Your task to perform on an android device: Open Google Chrome and click the shortcut for Amazon.com Image 0: 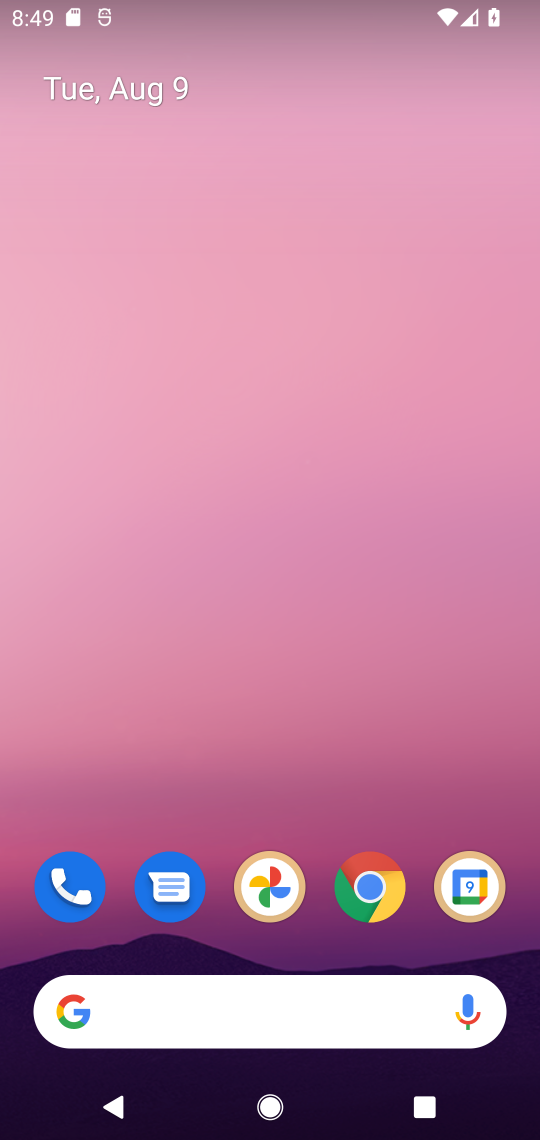
Step 0: click (354, 887)
Your task to perform on an android device: Open Google Chrome and click the shortcut for Amazon.com Image 1: 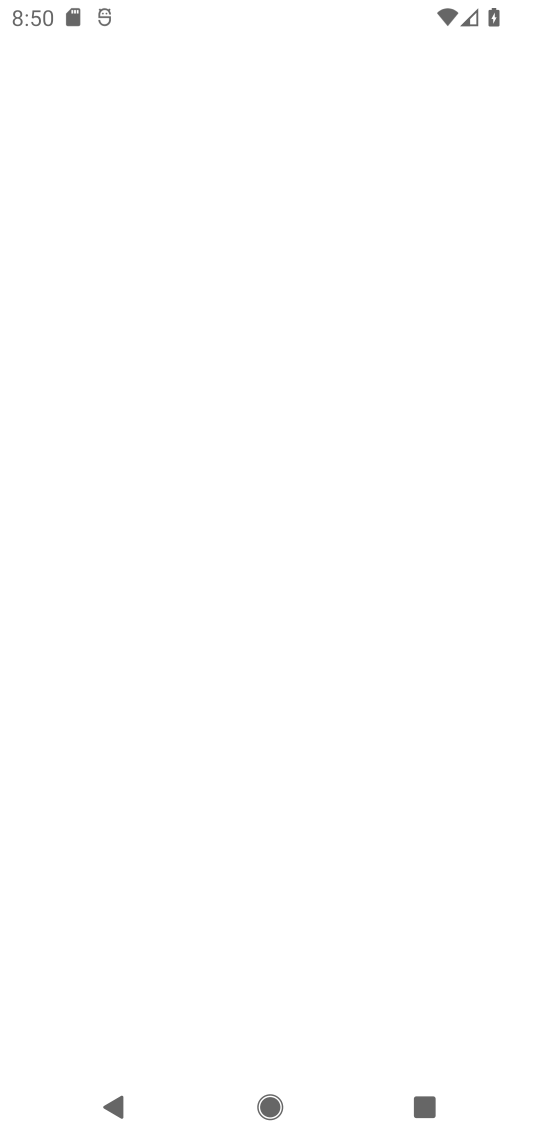
Step 1: task complete